Your task to perform on an android device: Do I have any events today? Image 0: 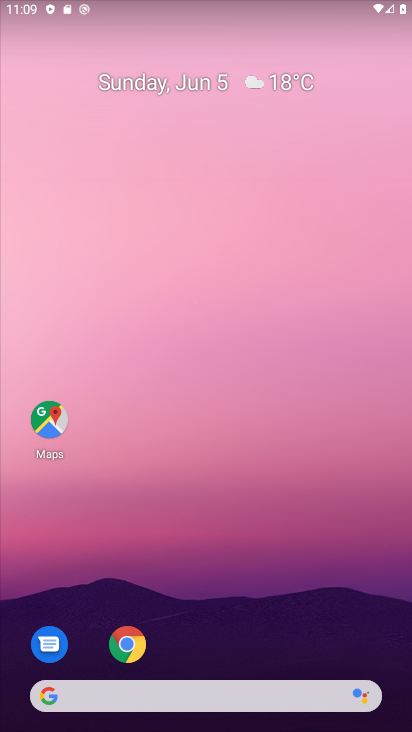
Step 0: drag from (249, 716) to (223, 156)
Your task to perform on an android device: Do I have any events today? Image 1: 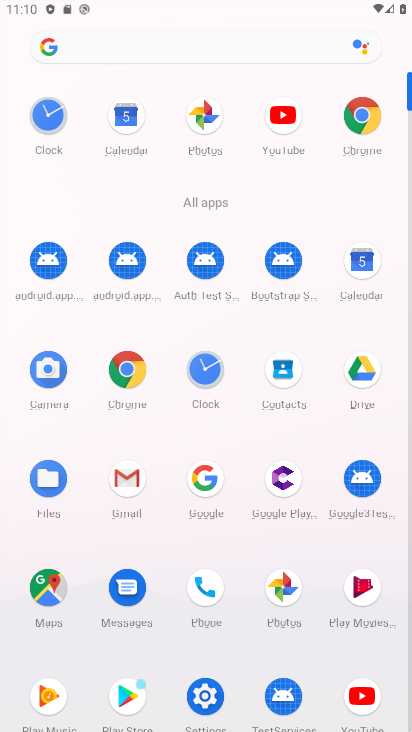
Step 1: click (347, 273)
Your task to perform on an android device: Do I have any events today? Image 2: 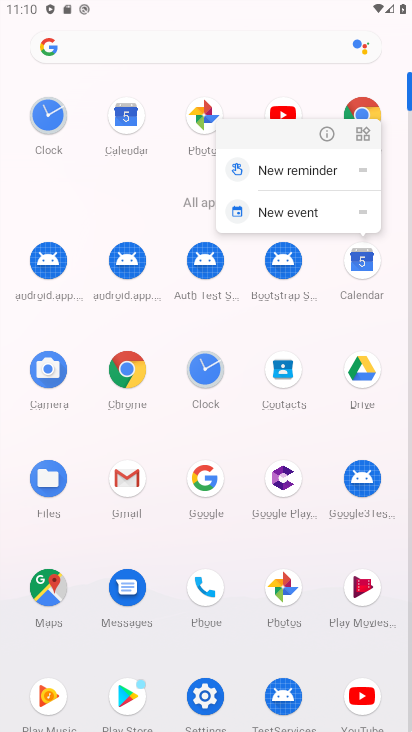
Step 2: click (349, 275)
Your task to perform on an android device: Do I have any events today? Image 3: 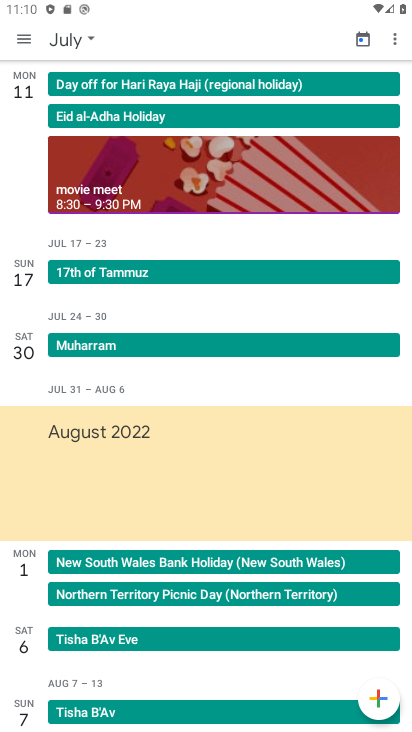
Step 3: task complete